Your task to perform on an android device: Search for pizza restaurants on Maps Image 0: 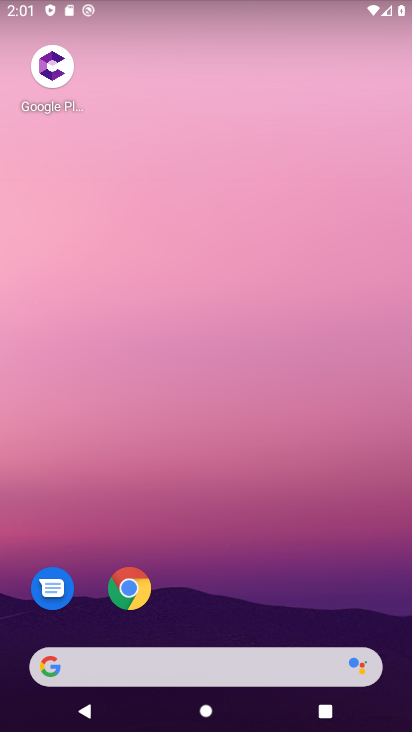
Step 0: drag from (181, 474) to (248, 91)
Your task to perform on an android device: Search for pizza restaurants on Maps Image 1: 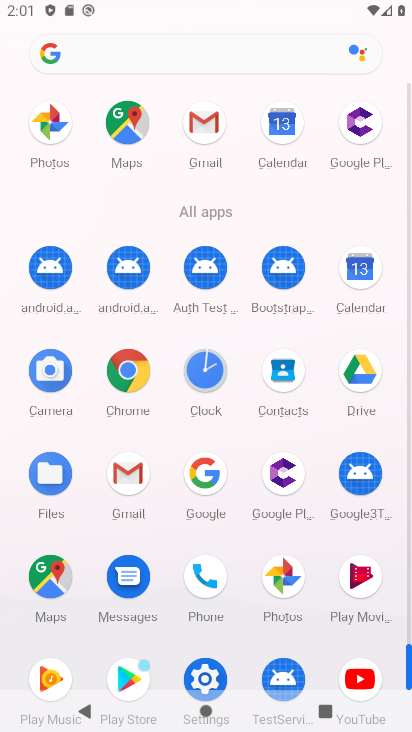
Step 1: click (46, 571)
Your task to perform on an android device: Search for pizza restaurants on Maps Image 2: 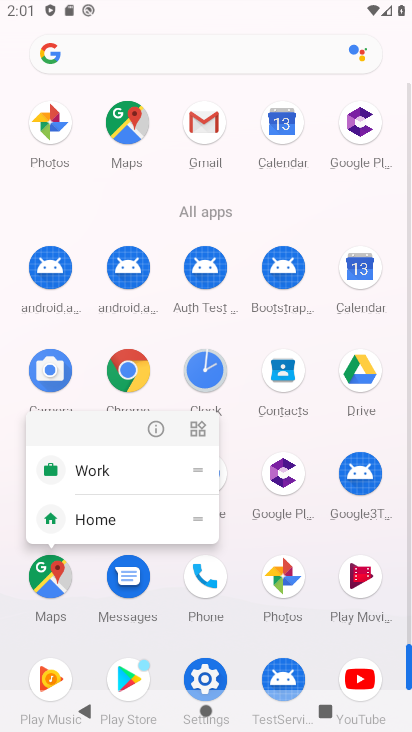
Step 2: click (157, 433)
Your task to perform on an android device: Search for pizza restaurants on Maps Image 3: 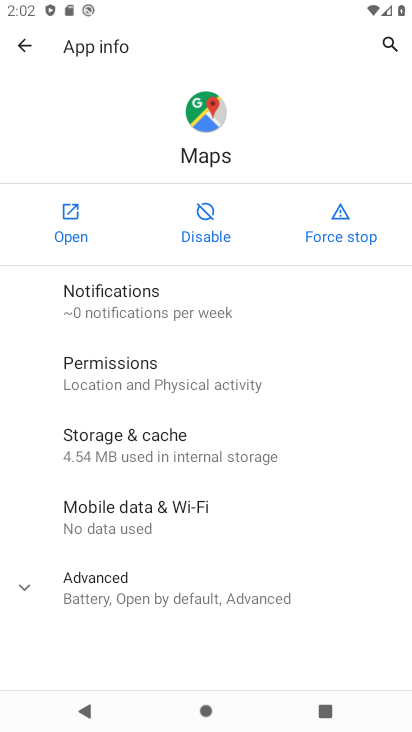
Step 3: click (73, 209)
Your task to perform on an android device: Search for pizza restaurants on Maps Image 4: 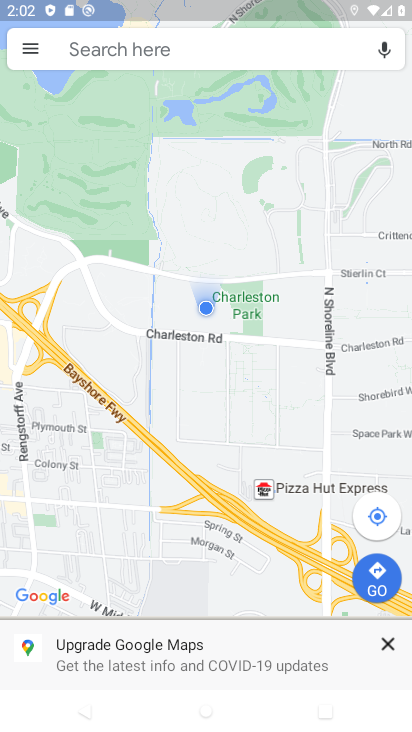
Step 4: click (123, 46)
Your task to perform on an android device: Search for pizza restaurants on Maps Image 5: 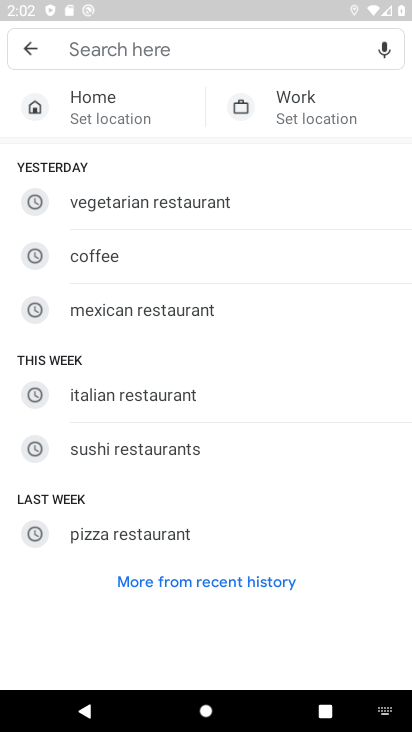
Step 5: click (90, 542)
Your task to perform on an android device: Search for pizza restaurants on Maps Image 6: 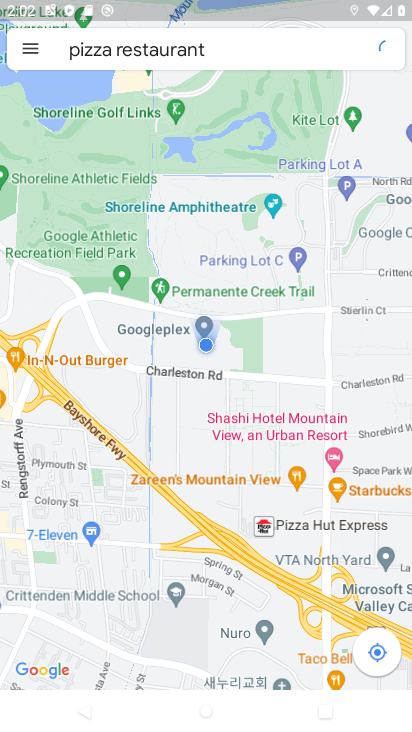
Step 6: task complete